Your task to perform on an android device: What's the weather today? Image 0: 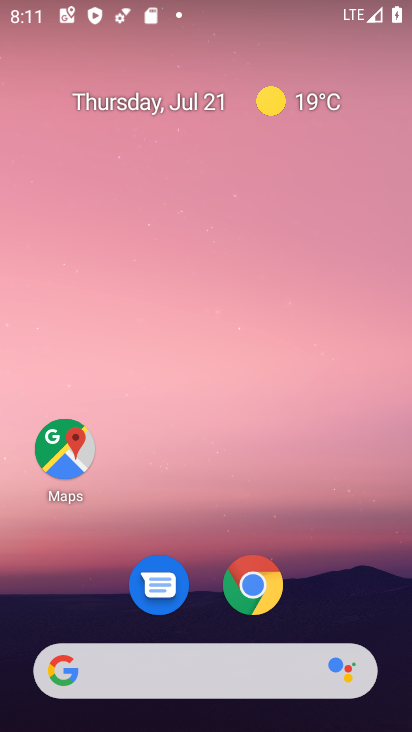
Step 0: click (249, 671)
Your task to perform on an android device: What's the weather today? Image 1: 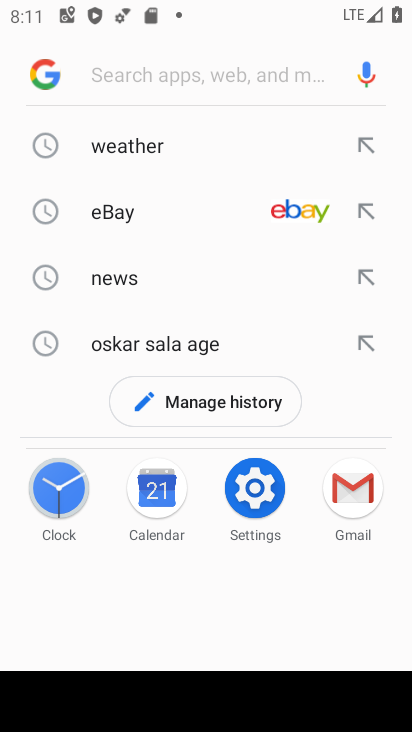
Step 1: click (144, 148)
Your task to perform on an android device: What's the weather today? Image 2: 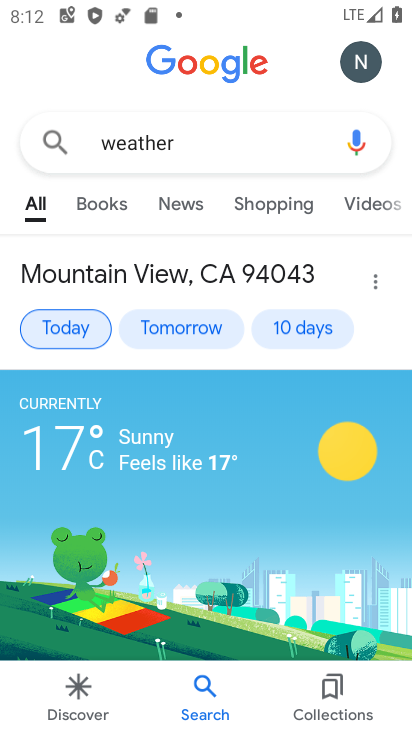
Step 2: click (53, 322)
Your task to perform on an android device: What's the weather today? Image 3: 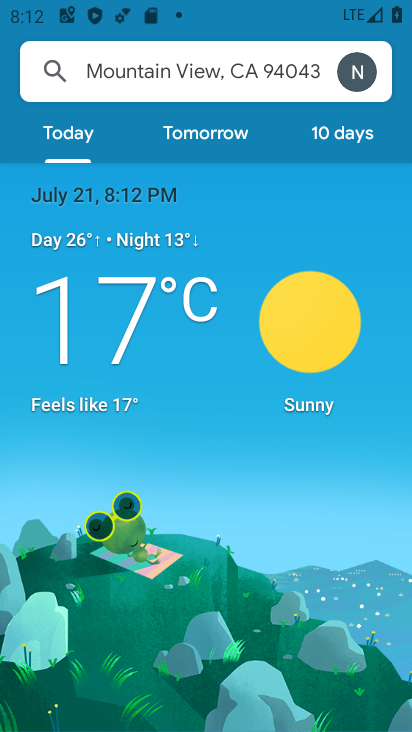
Step 3: task complete